Your task to perform on an android device: Search for sushi restaurants on Maps Image 0: 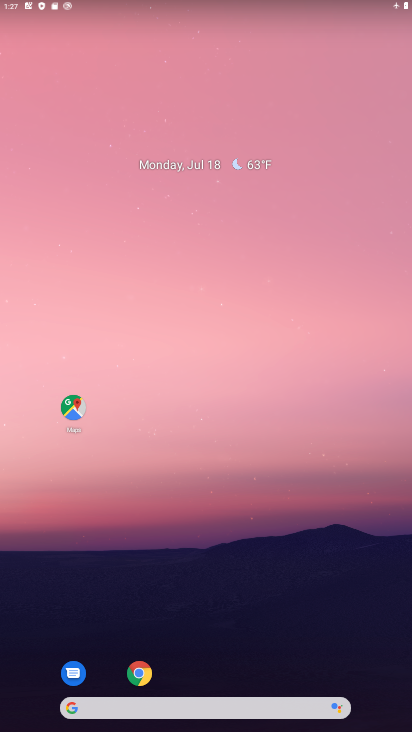
Step 0: drag from (242, 604) to (196, 209)
Your task to perform on an android device: Search for sushi restaurants on Maps Image 1: 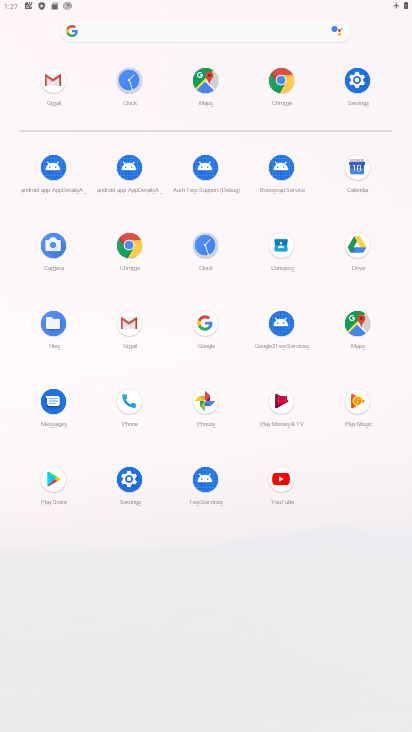
Step 1: click (212, 78)
Your task to perform on an android device: Search for sushi restaurants on Maps Image 2: 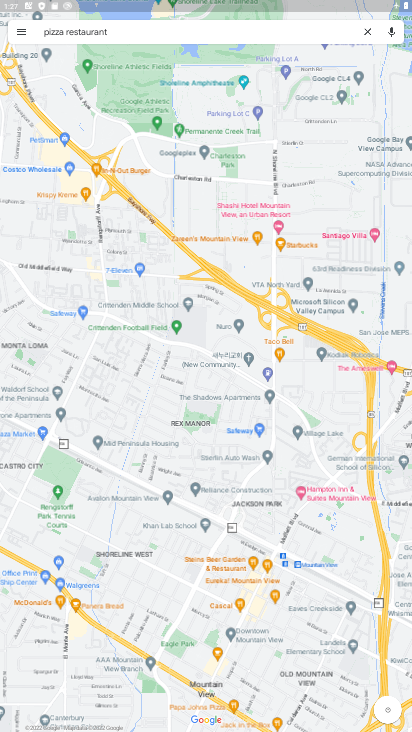
Step 2: click (172, 24)
Your task to perform on an android device: Search for sushi restaurants on Maps Image 3: 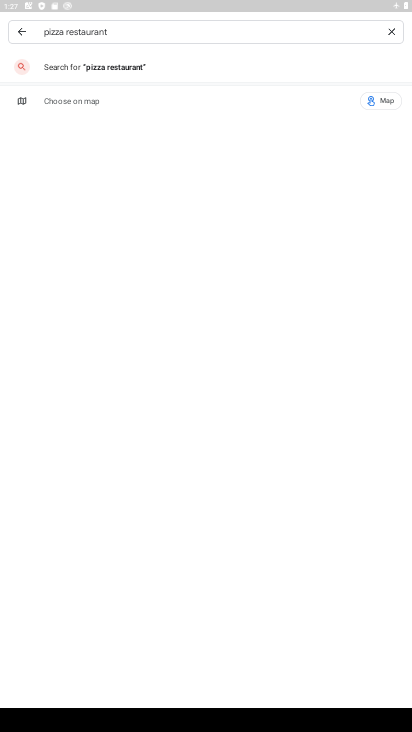
Step 3: click (394, 31)
Your task to perform on an android device: Search for sushi restaurants on Maps Image 4: 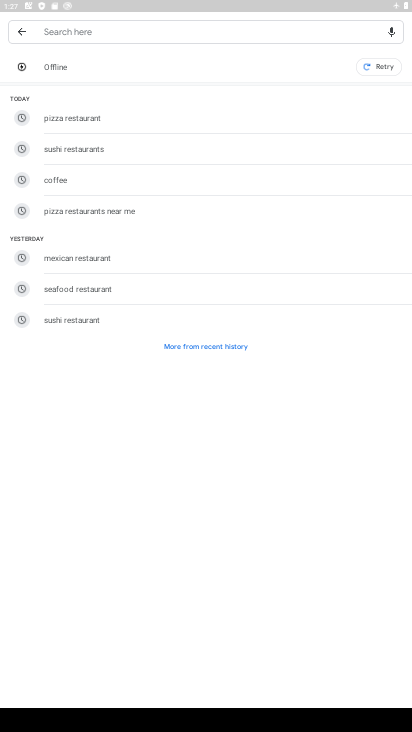
Step 4: click (100, 145)
Your task to perform on an android device: Search for sushi restaurants on Maps Image 5: 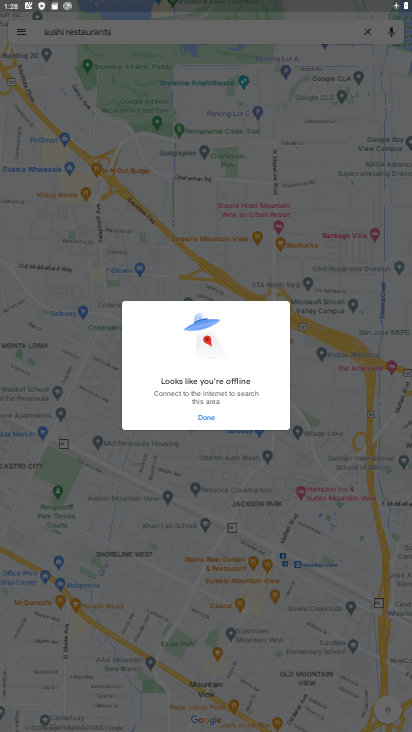
Step 5: task complete